Your task to perform on an android device: turn on javascript in the chrome app Image 0: 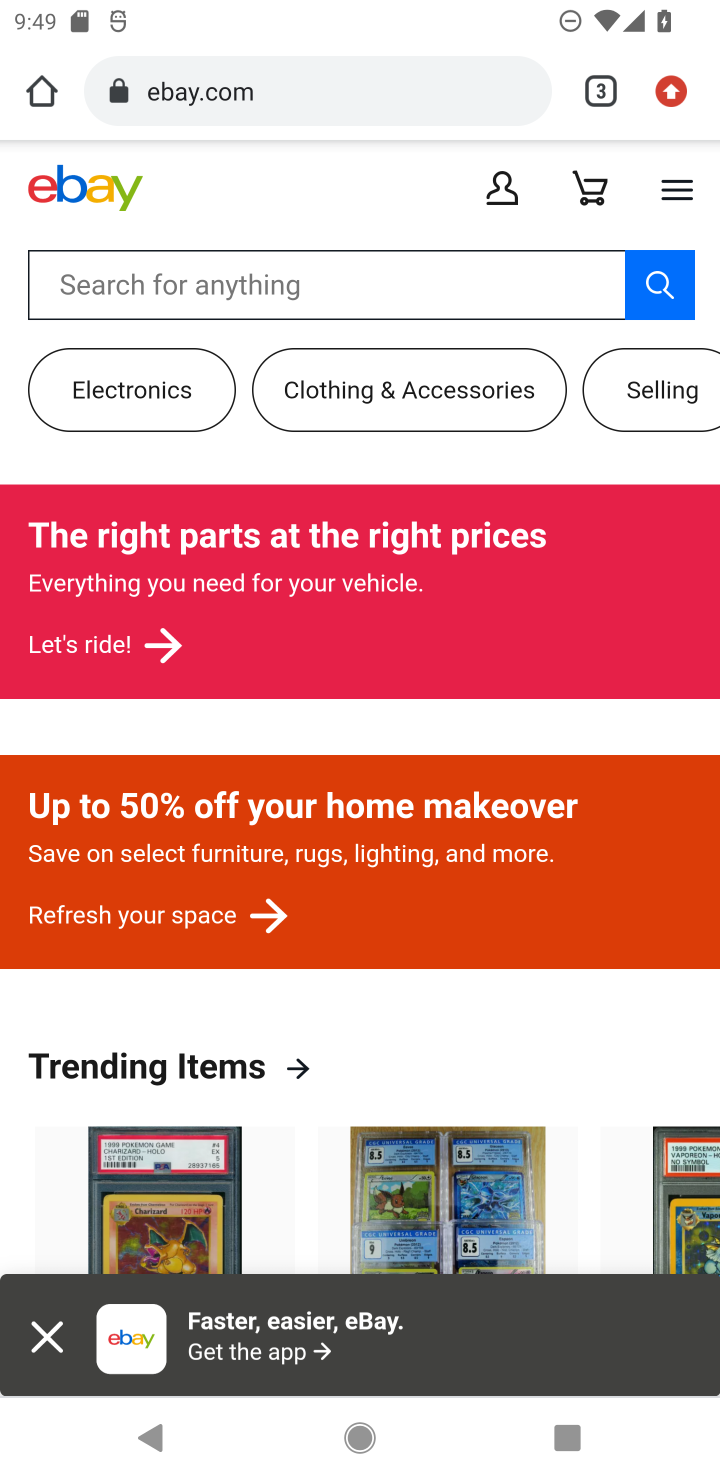
Step 0: press home button
Your task to perform on an android device: turn on javascript in the chrome app Image 1: 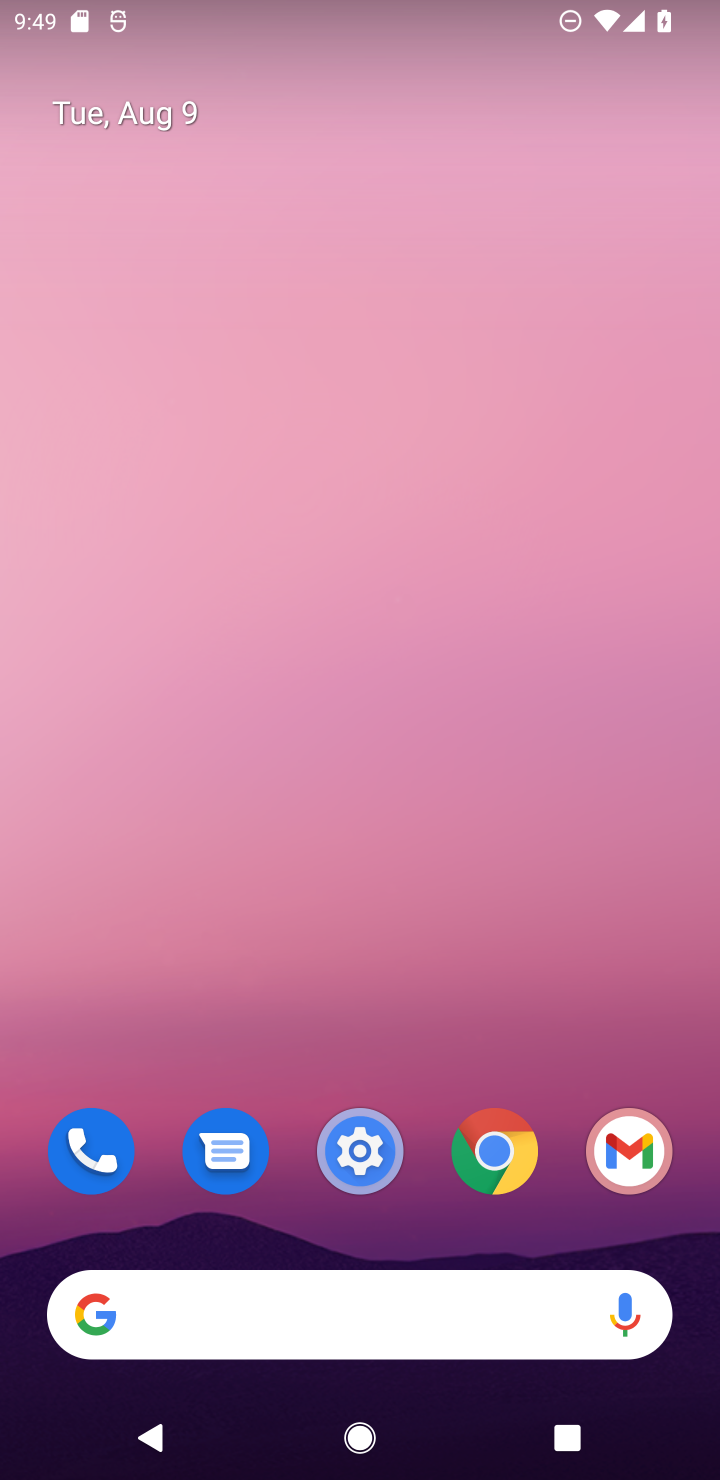
Step 1: click (467, 1135)
Your task to perform on an android device: turn on javascript in the chrome app Image 2: 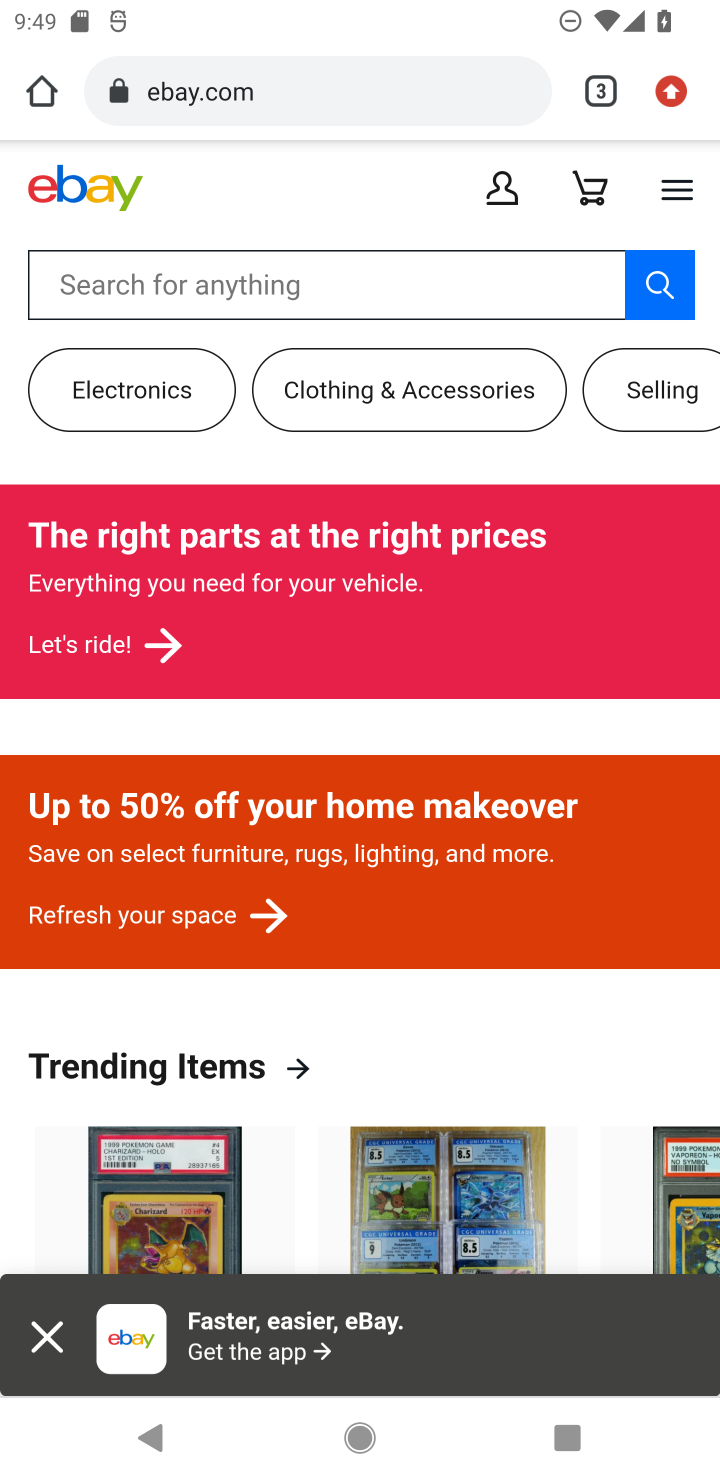
Step 2: click (679, 81)
Your task to perform on an android device: turn on javascript in the chrome app Image 3: 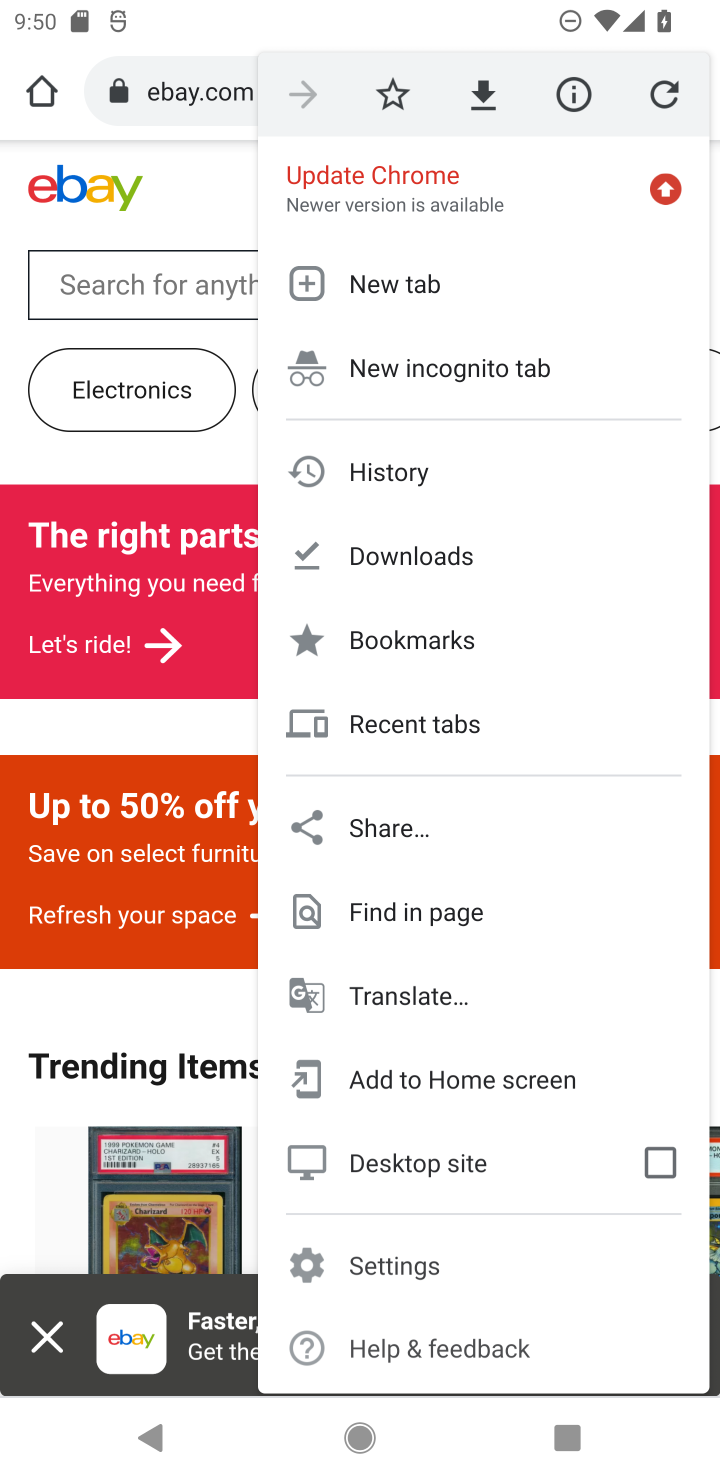
Step 3: click (679, 81)
Your task to perform on an android device: turn on javascript in the chrome app Image 4: 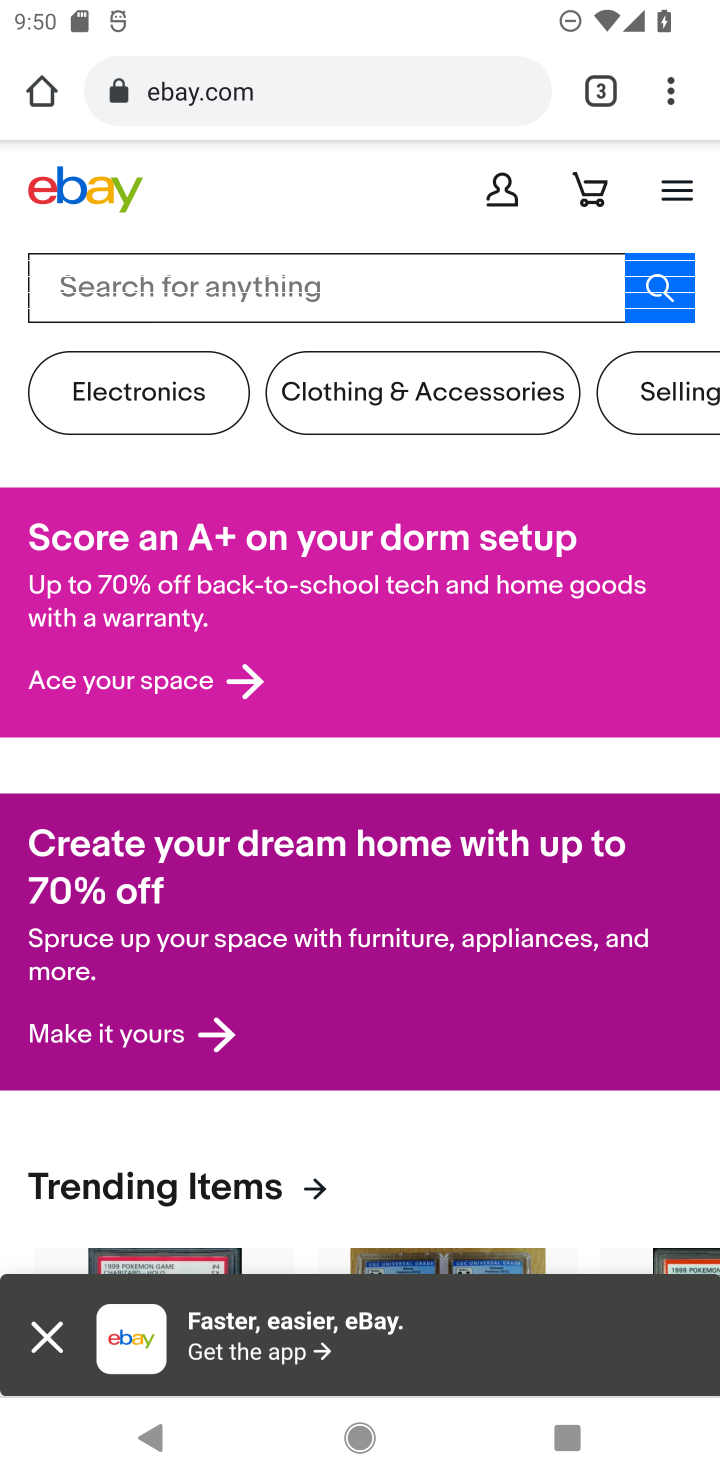
Step 4: click (671, 86)
Your task to perform on an android device: turn on javascript in the chrome app Image 5: 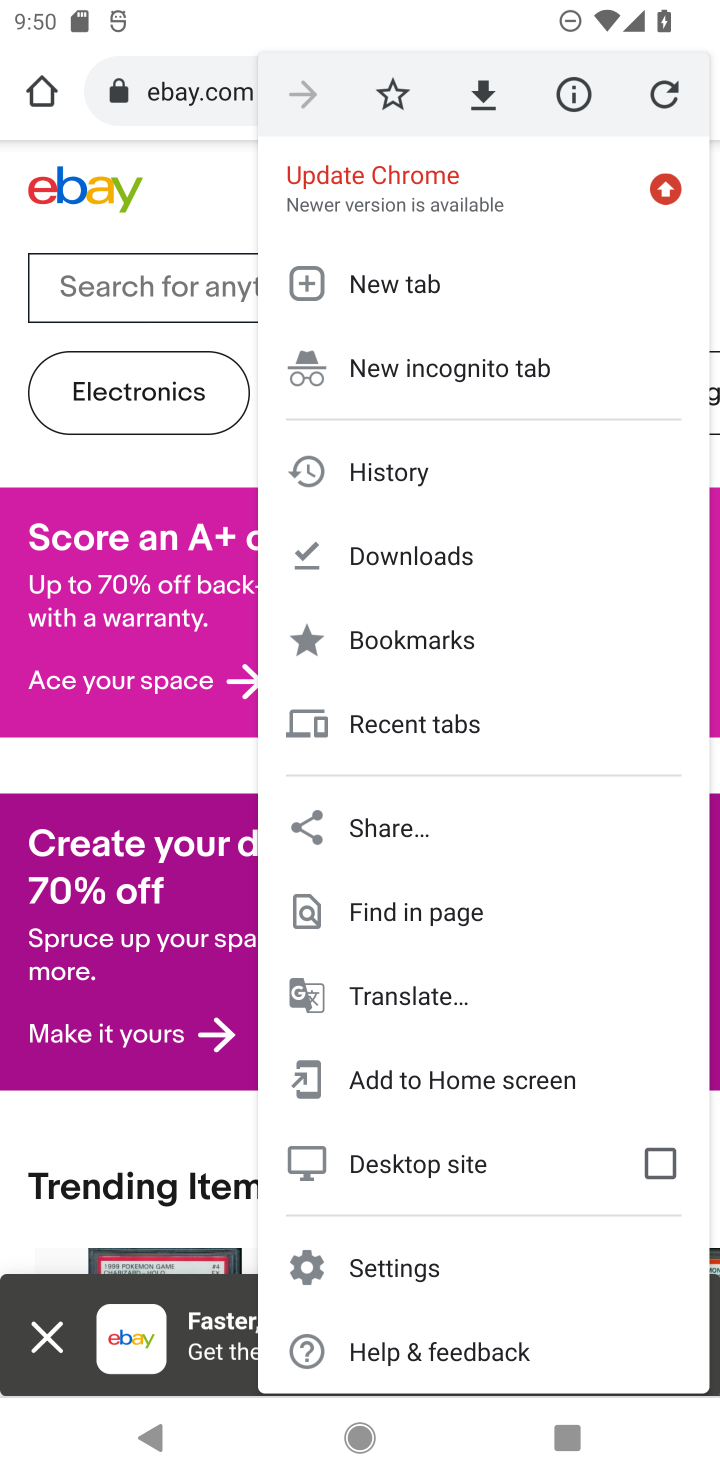
Step 5: click (376, 1266)
Your task to perform on an android device: turn on javascript in the chrome app Image 6: 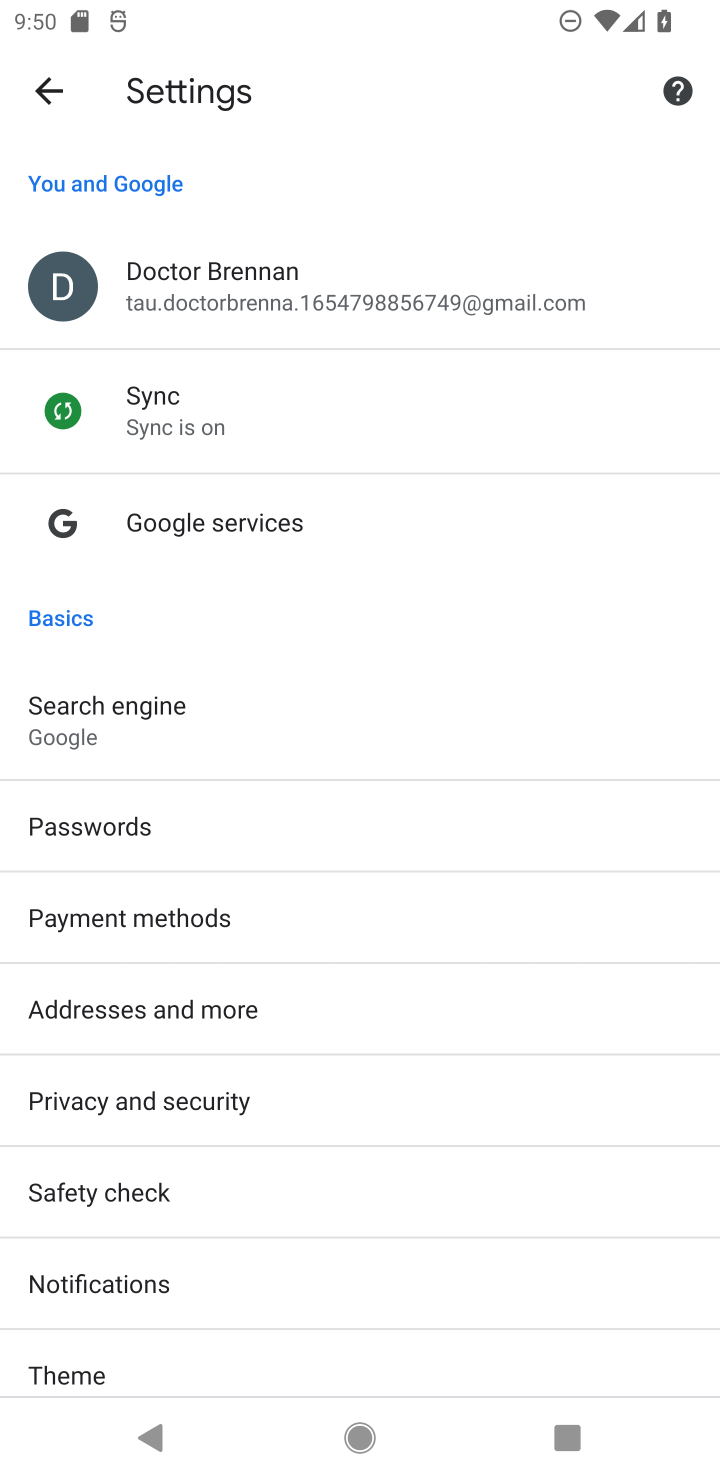
Step 6: drag from (339, 1182) to (295, 196)
Your task to perform on an android device: turn on javascript in the chrome app Image 7: 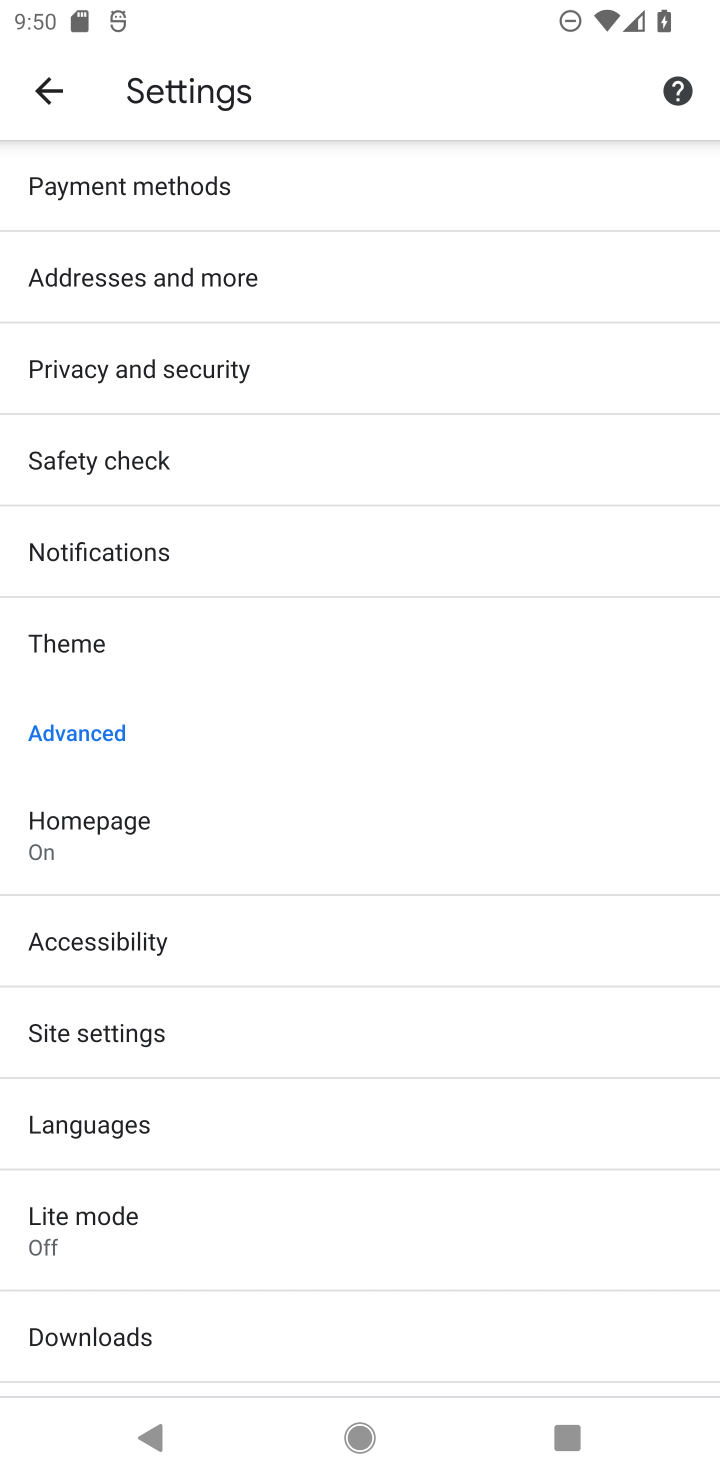
Step 7: click (130, 1039)
Your task to perform on an android device: turn on javascript in the chrome app Image 8: 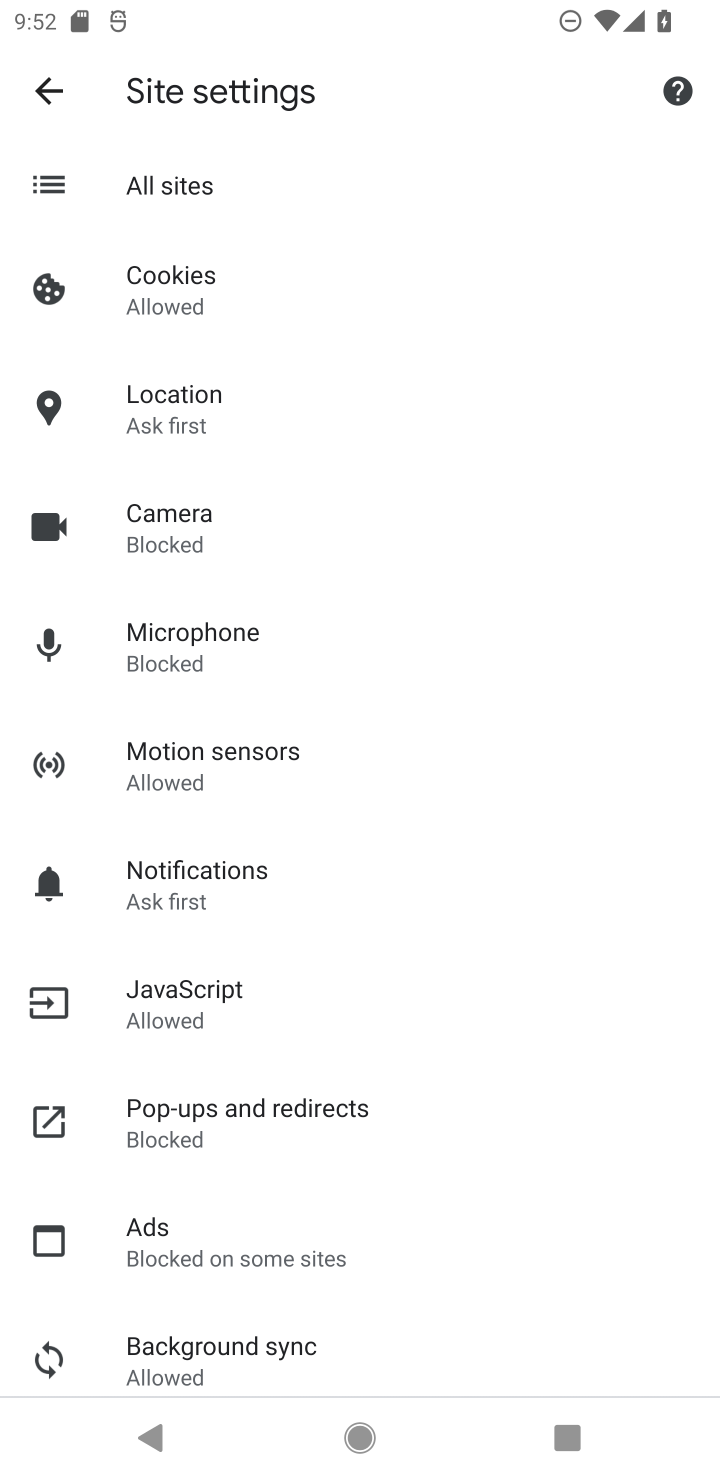
Step 8: task complete